Your task to perform on an android device: toggle translation in the chrome app Image 0: 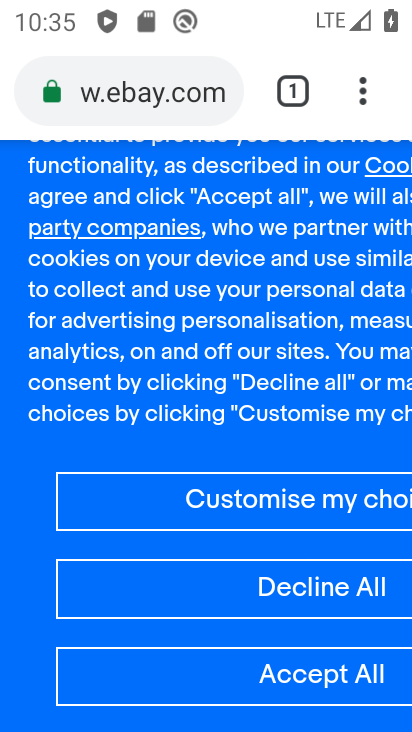
Step 0: press home button
Your task to perform on an android device: toggle translation in the chrome app Image 1: 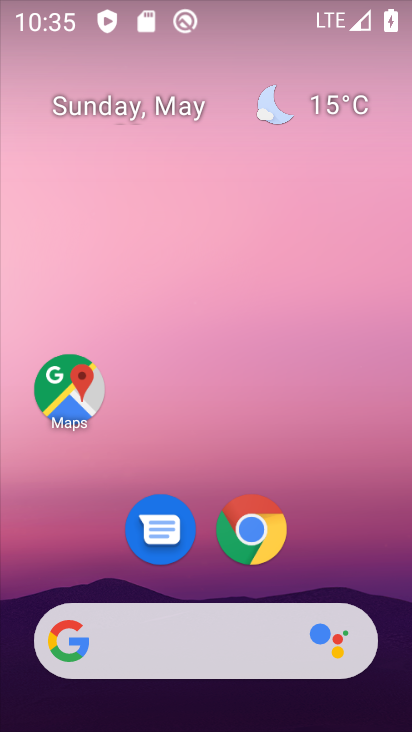
Step 1: drag from (262, 623) to (292, 126)
Your task to perform on an android device: toggle translation in the chrome app Image 2: 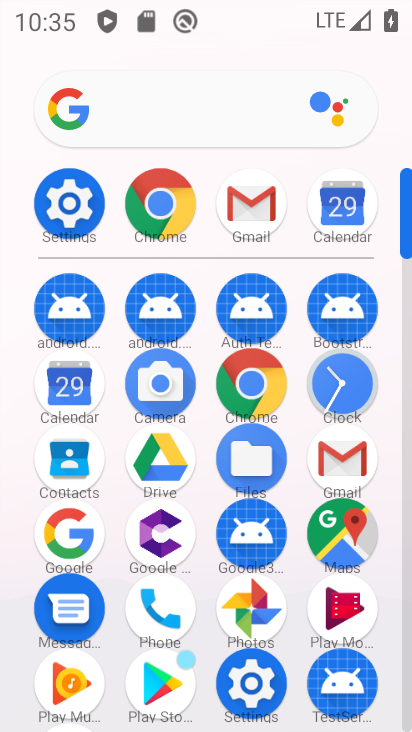
Step 2: click (257, 379)
Your task to perform on an android device: toggle translation in the chrome app Image 3: 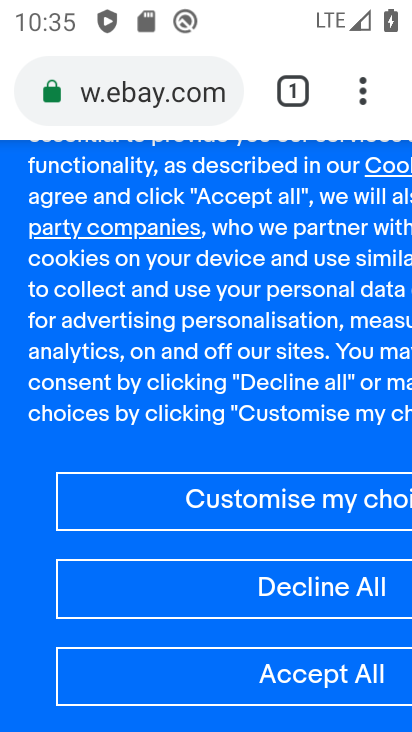
Step 3: drag from (376, 88) to (172, 607)
Your task to perform on an android device: toggle translation in the chrome app Image 4: 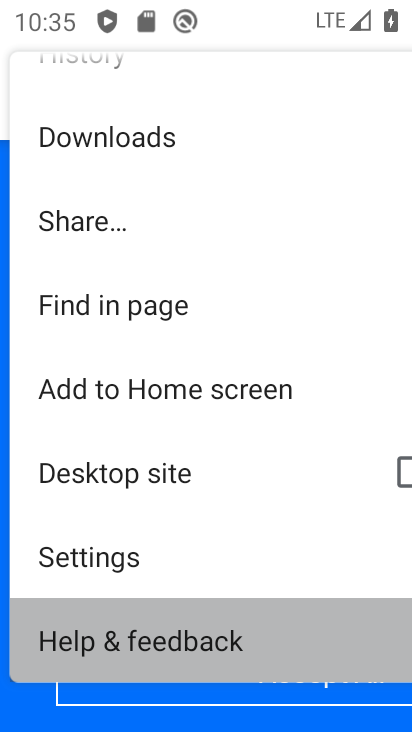
Step 4: click (167, 579)
Your task to perform on an android device: toggle translation in the chrome app Image 5: 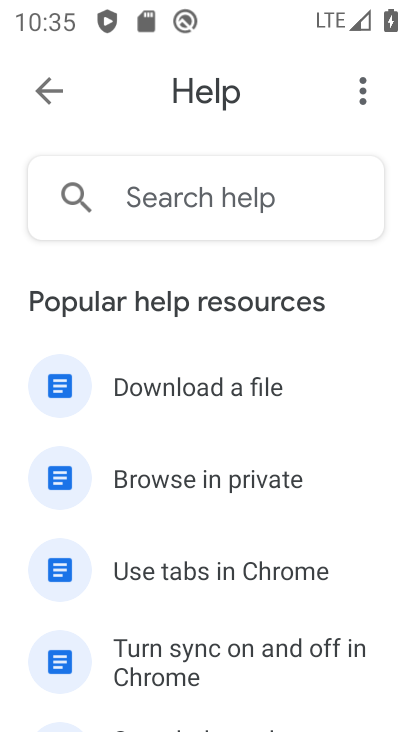
Step 5: press back button
Your task to perform on an android device: toggle translation in the chrome app Image 6: 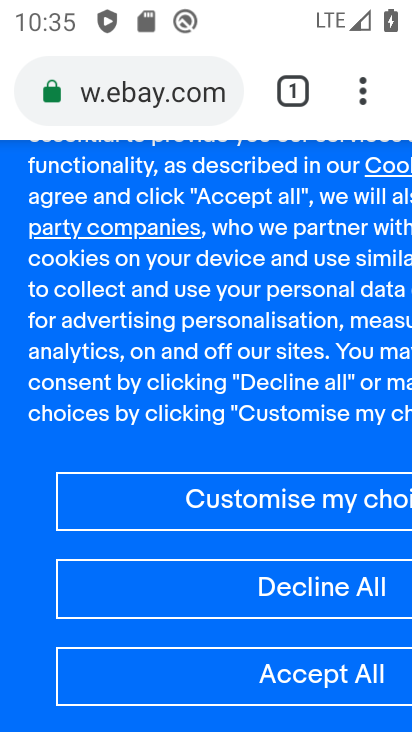
Step 6: click (361, 85)
Your task to perform on an android device: toggle translation in the chrome app Image 7: 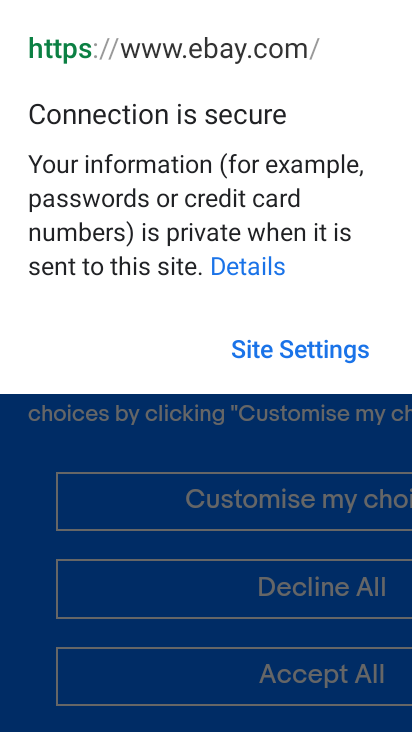
Step 7: click (311, 459)
Your task to perform on an android device: toggle translation in the chrome app Image 8: 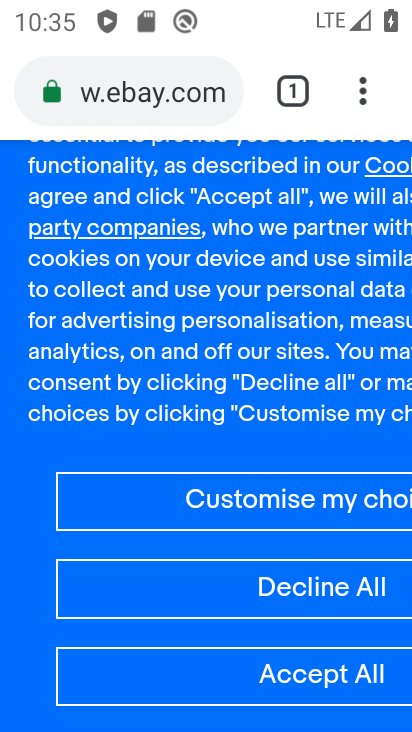
Step 8: drag from (364, 84) to (151, 564)
Your task to perform on an android device: toggle translation in the chrome app Image 9: 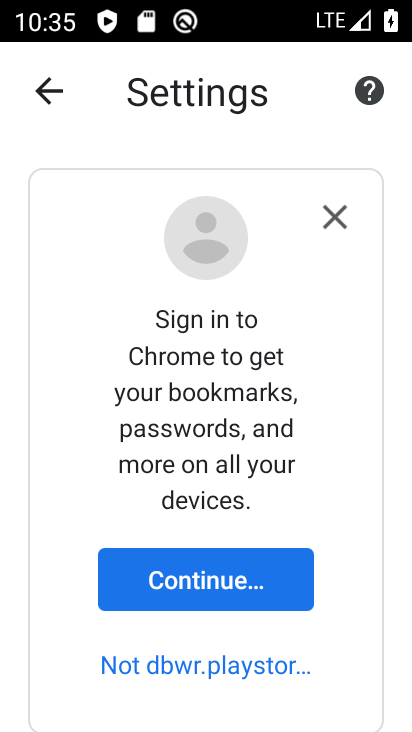
Step 9: drag from (144, 598) to (234, 176)
Your task to perform on an android device: toggle translation in the chrome app Image 10: 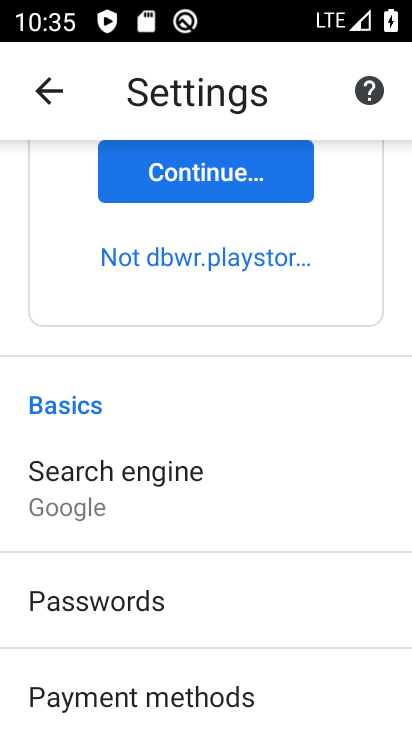
Step 10: drag from (215, 567) to (242, 199)
Your task to perform on an android device: toggle translation in the chrome app Image 11: 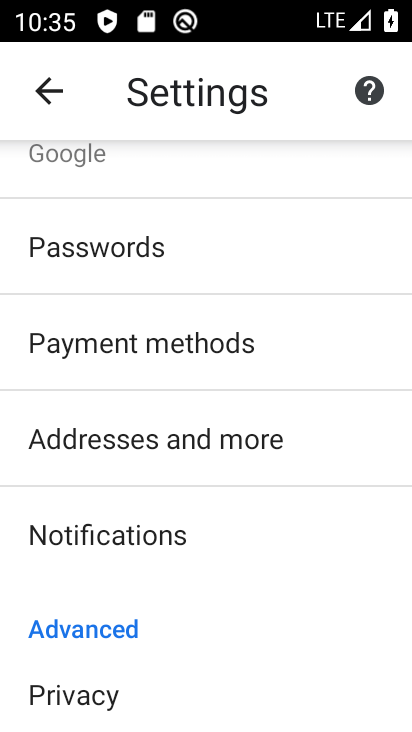
Step 11: drag from (135, 626) to (235, 142)
Your task to perform on an android device: toggle translation in the chrome app Image 12: 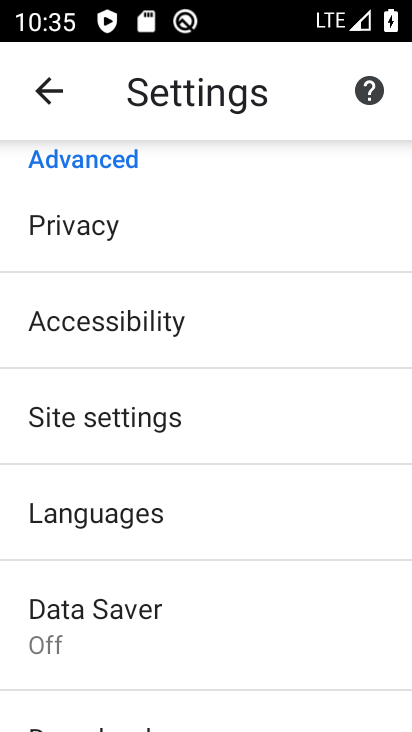
Step 12: drag from (245, 651) to (285, 291)
Your task to perform on an android device: toggle translation in the chrome app Image 13: 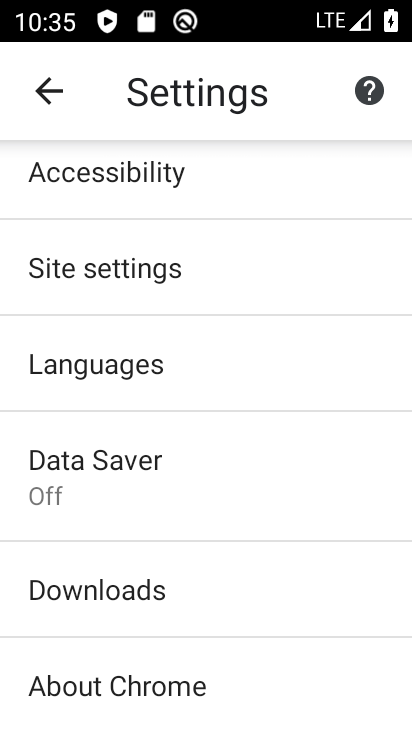
Step 13: click (138, 368)
Your task to perform on an android device: toggle translation in the chrome app Image 14: 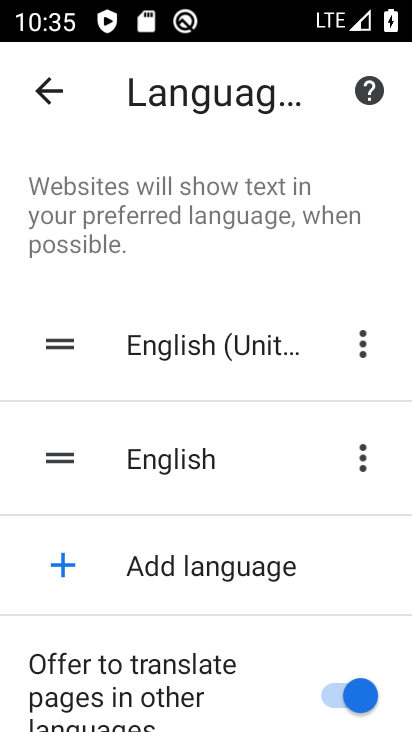
Step 14: task complete